Your task to perform on an android device: Open ESPN.com Image 0: 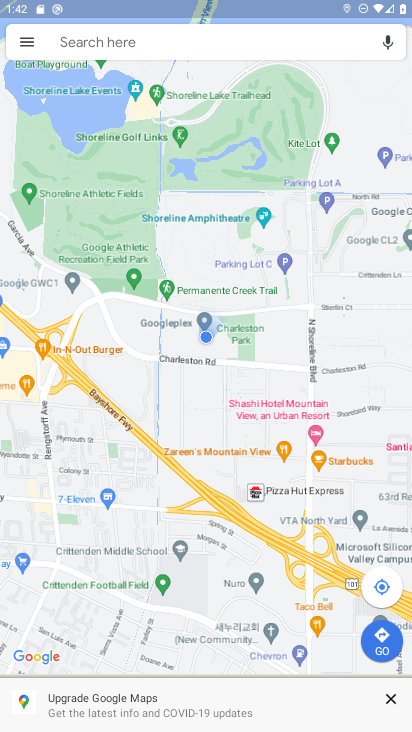
Step 0: press home button
Your task to perform on an android device: Open ESPN.com Image 1: 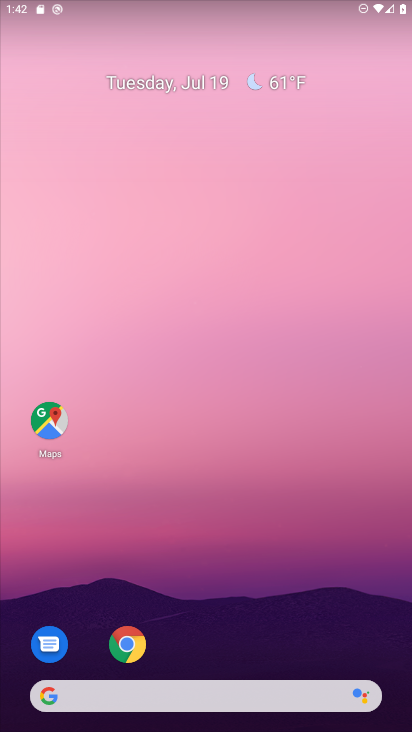
Step 1: click (128, 658)
Your task to perform on an android device: Open ESPN.com Image 2: 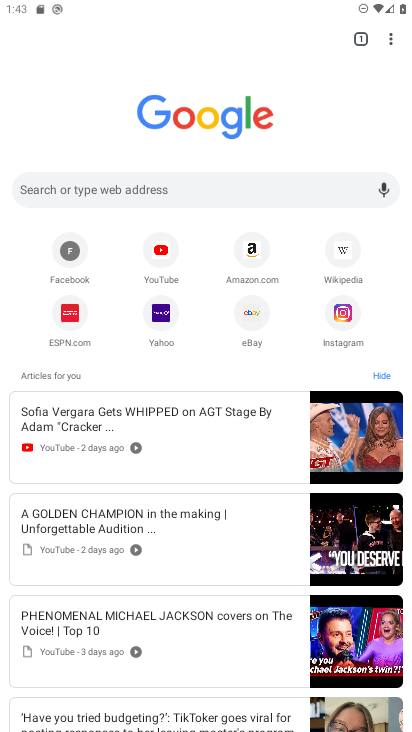
Step 2: click (71, 314)
Your task to perform on an android device: Open ESPN.com Image 3: 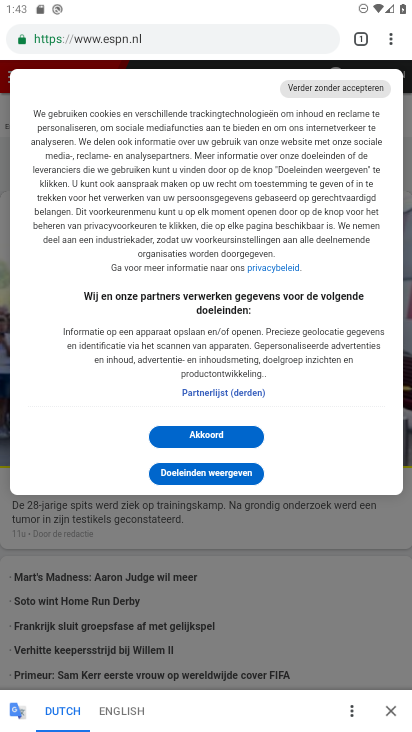
Step 3: task complete